Your task to perform on an android device: search for starred emails in the gmail app Image 0: 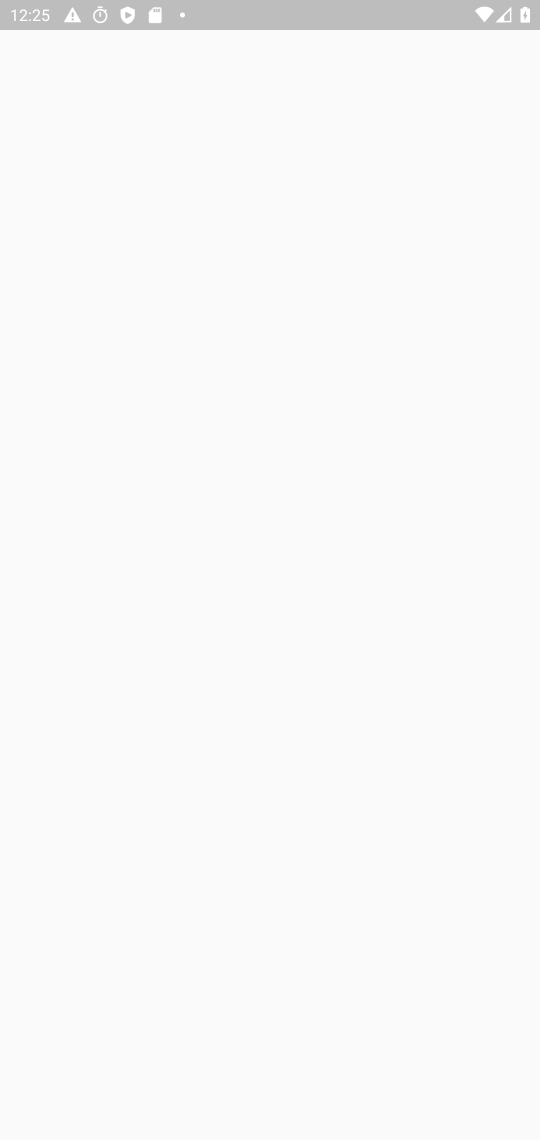
Step 0: press home button
Your task to perform on an android device: search for starred emails in the gmail app Image 1: 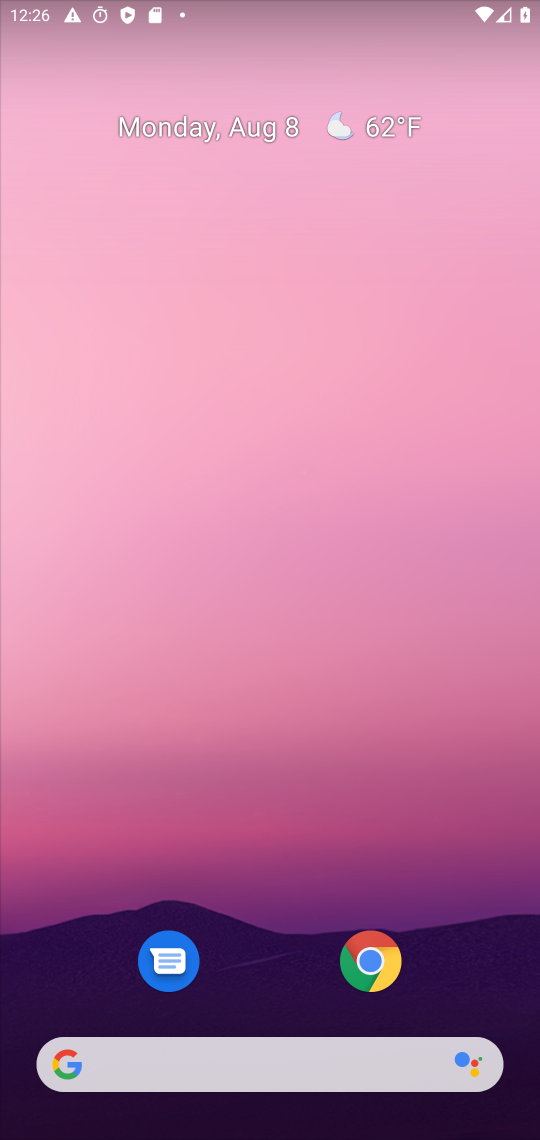
Step 1: drag from (341, 1047) to (260, 64)
Your task to perform on an android device: search for starred emails in the gmail app Image 2: 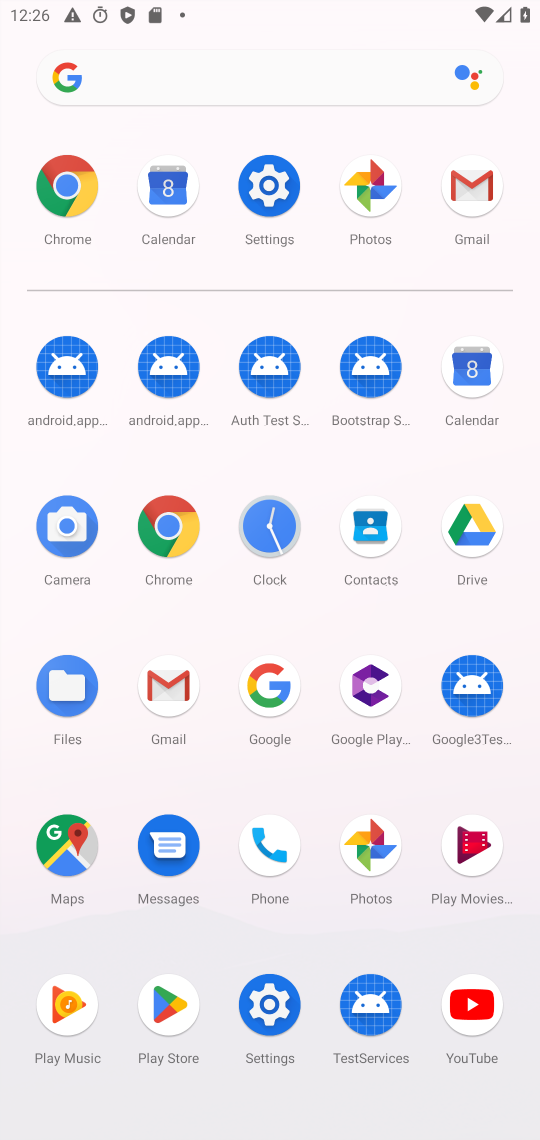
Step 2: click (167, 687)
Your task to perform on an android device: search for starred emails in the gmail app Image 3: 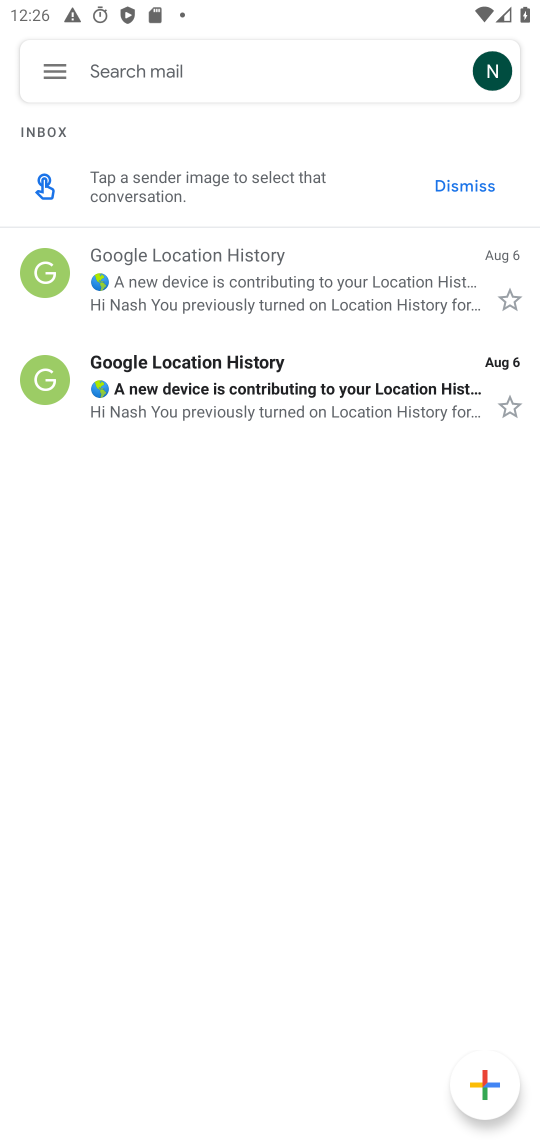
Step 3: click (53, 53)
Your task to perform on an android device: search for starred emails in the gmail app Image 4: 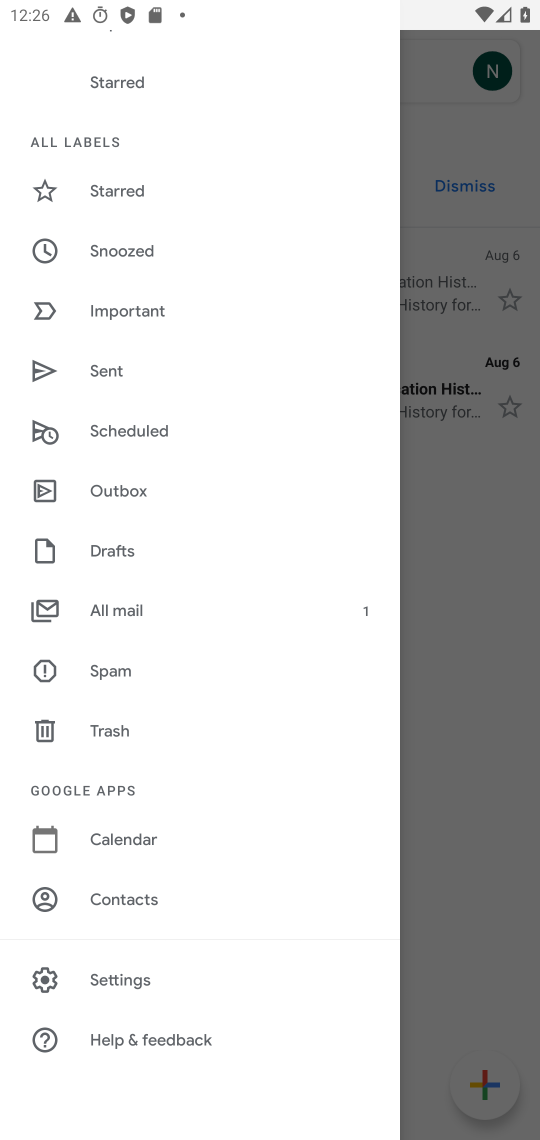
Step 4: click (146, 190)
Your task to perform on an android device: search for starred emails in the gmail app Image 5: 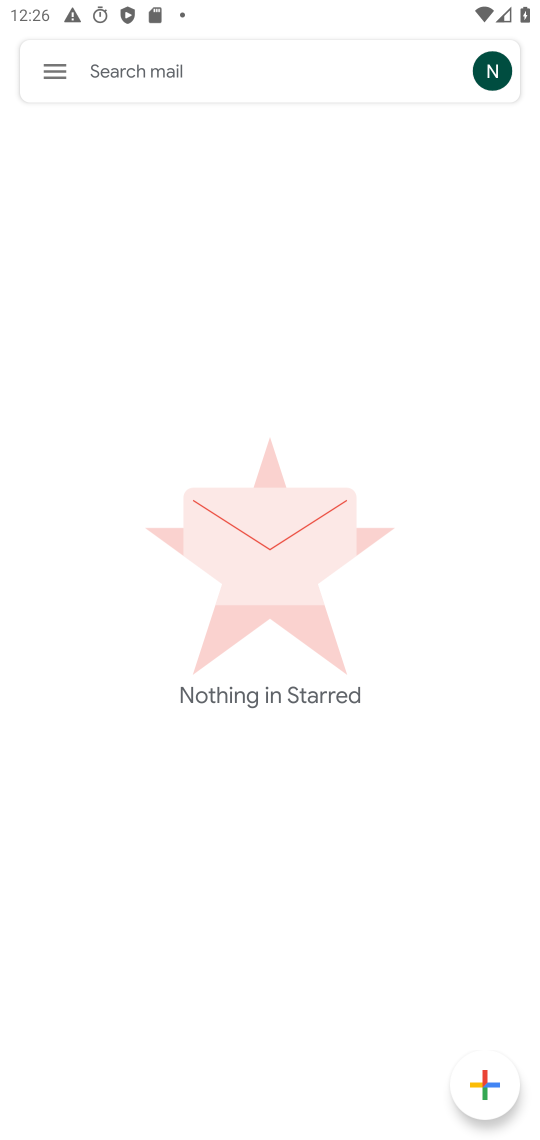
Step 5: task complete